Your task to perform on an android device: toggle wifi Image 0: 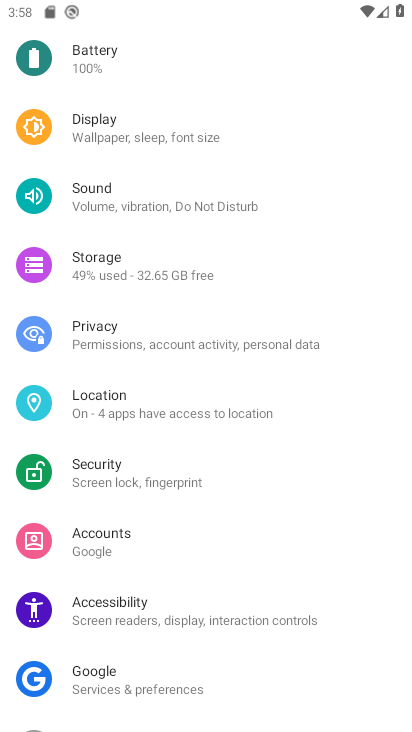
Step 0: drag from (177, 178) to (178, 499)
Your task to perform on an android device: toggle wifi Image 1: 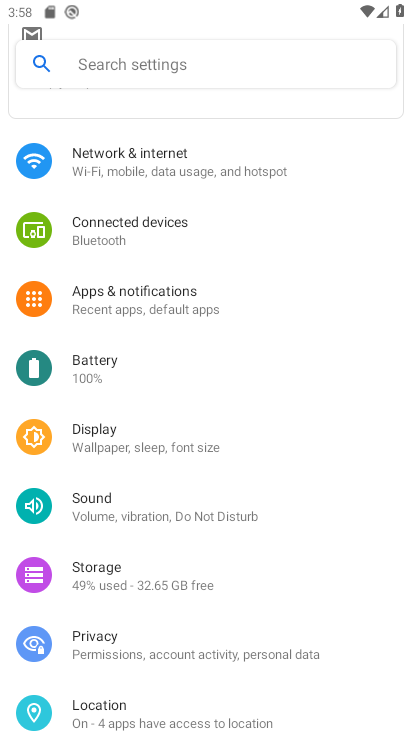
Step 1: drag from (243, 198) to (241, 400)
Your task to perform on an android device: toggle wifi Image 2: 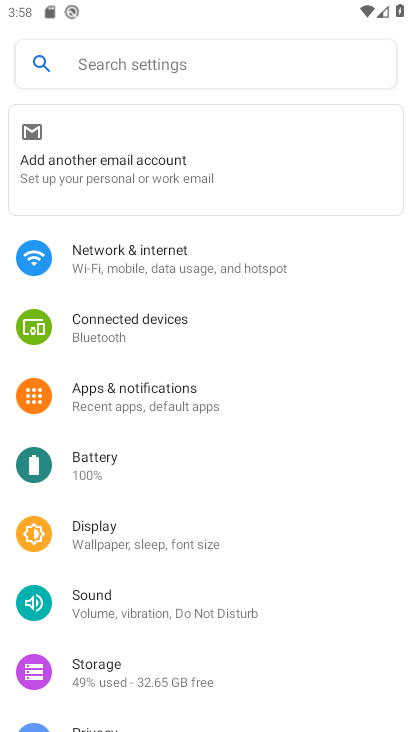
Step 2: click (242, 272)
Your task to perform on an android device: toggle wifi Image 3: 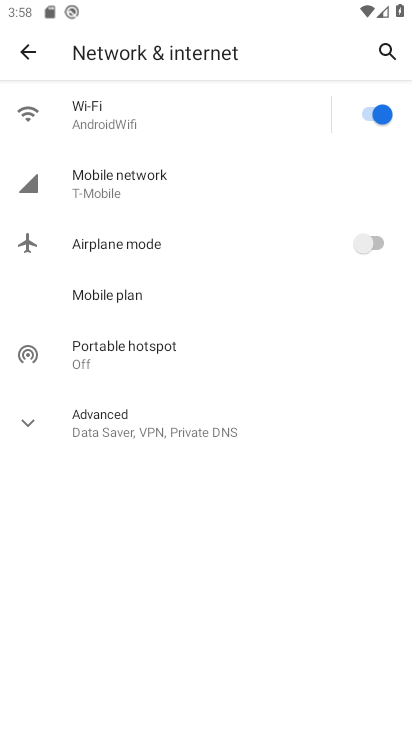
Step 3: click (365, 118)
Your task to perform on an android device: toggle wifi Image 4: 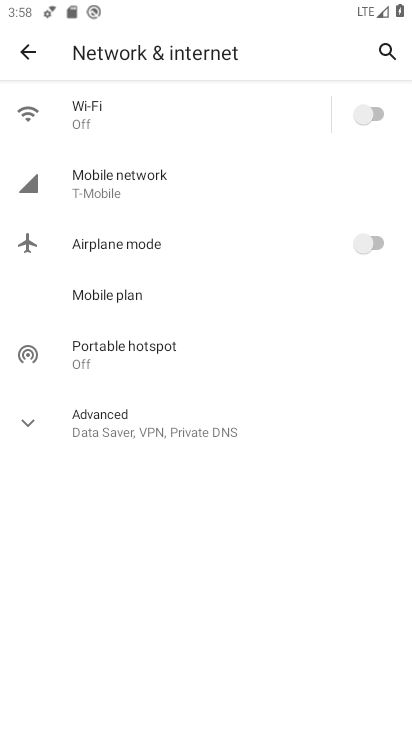
Step 4: task complete